Your task to perform on an android device: Open Yahoo.com Image 0: 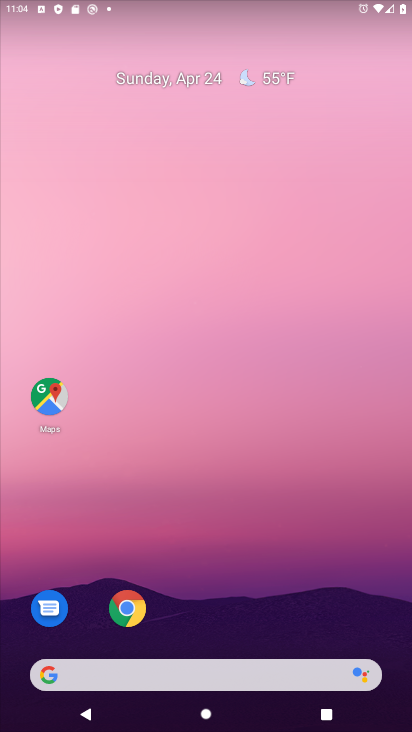
Step 0: click (124, 607)
Your task to perform on an android device: Open Yahoo.com Image 1: 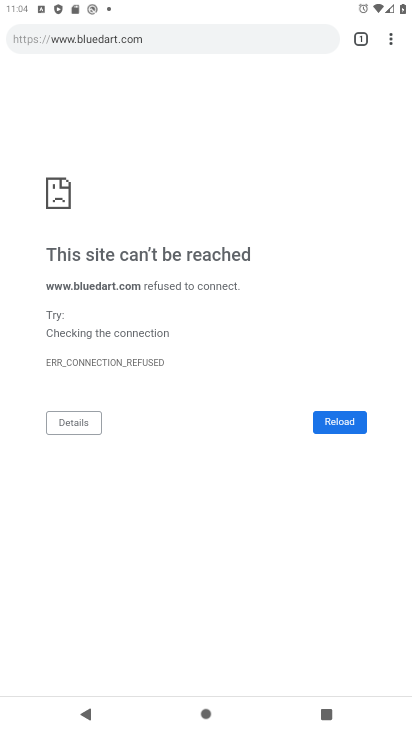
Step 1: click (148, 38)
Your task to perform on an android device: Open Yahoo.com Image 2: 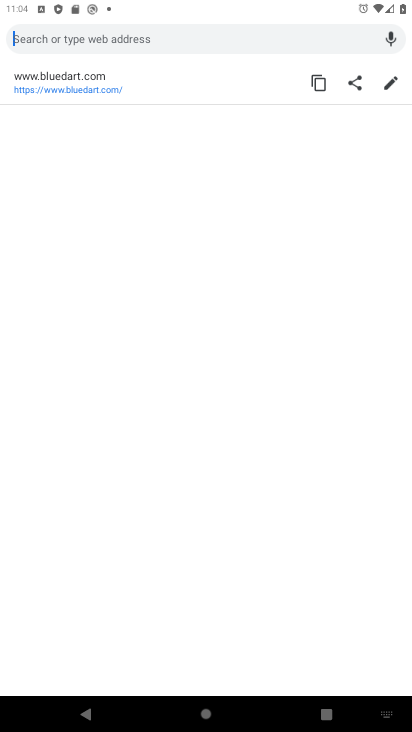
Step 2: type "yahoo.com"
Your task to perform on an android device: Open Yahoo.com Image 3: 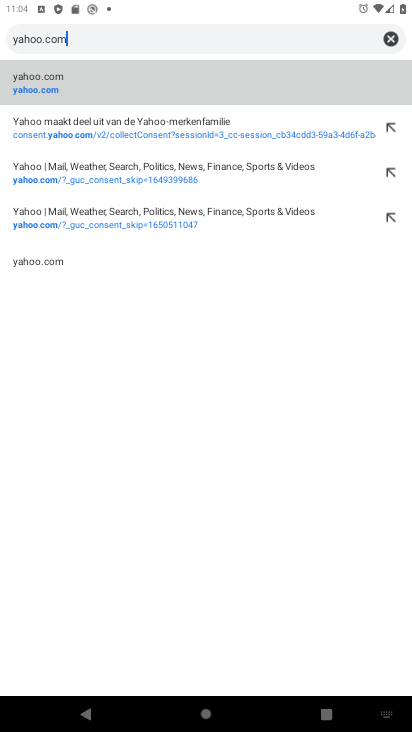
Step 3: click (58, 83)
Your task to perform on an android device: Open Yahoo.com Image 4: 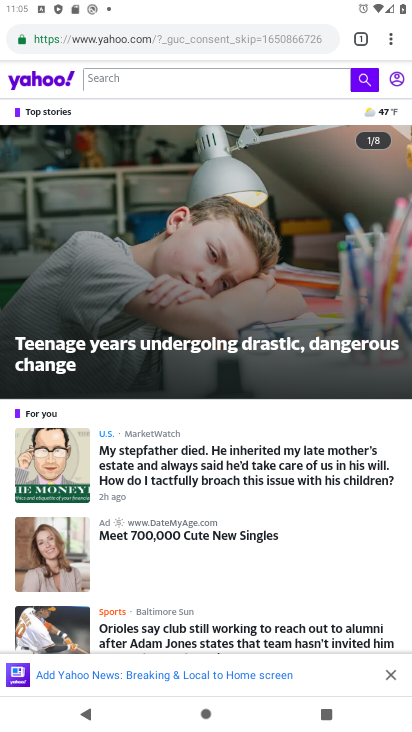
Step 4: task complete